Your task to perform on an android device: toggle location history Image 0: 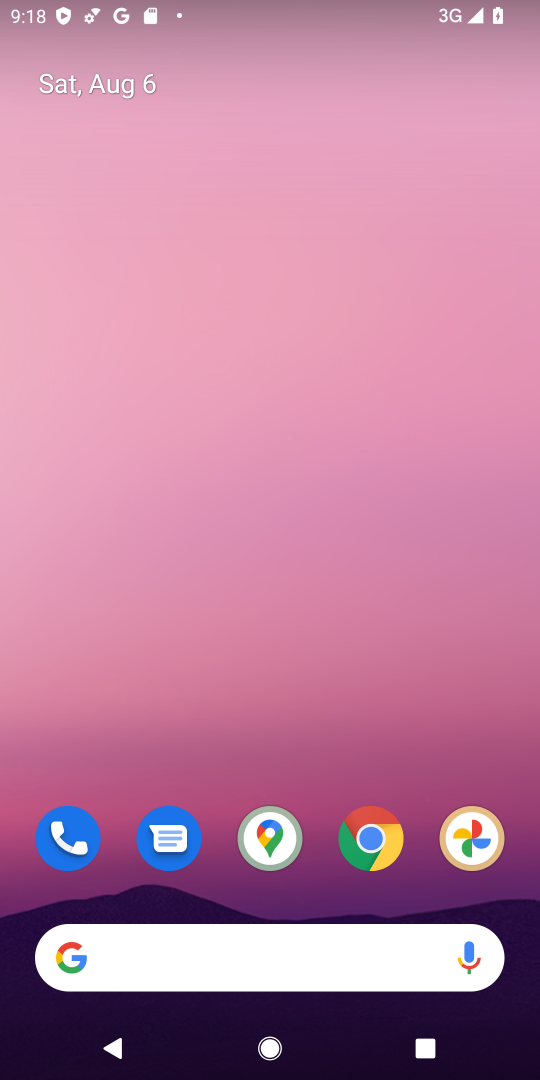
Step 0: drag from (312, 787) to (269, 196)
Your task to perform on an android device: toggle location history Image 1: 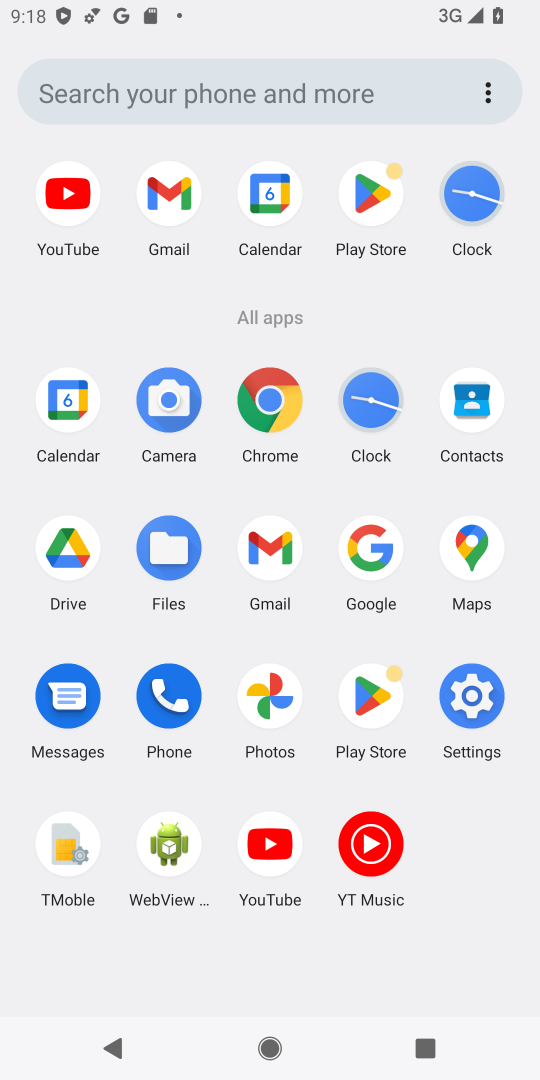
Step 1: click (452, 691)
Your task to perform on an android device: toggle location history Image 2: 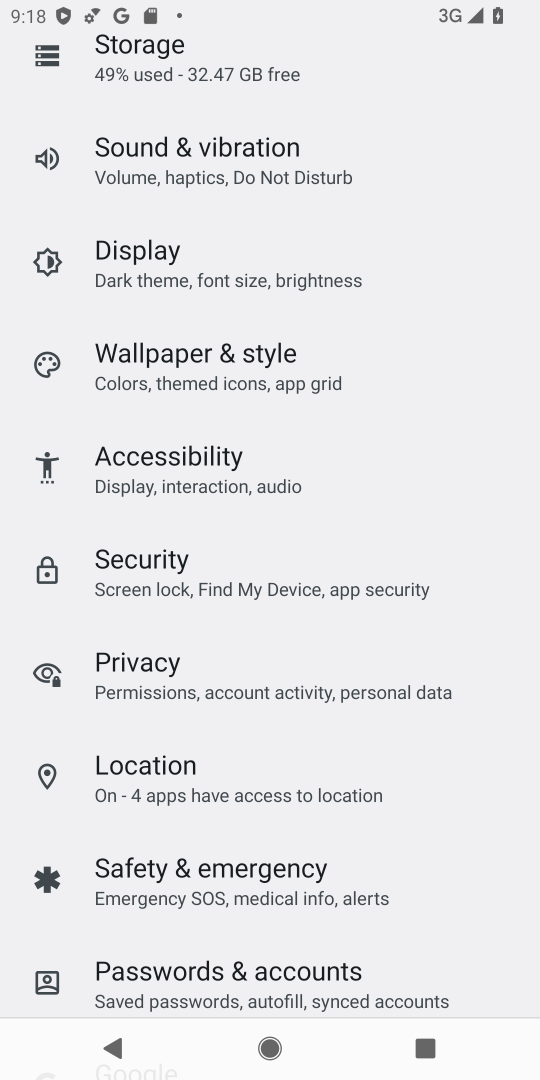
Step 2: click (244, 784)
Your task to perform on an android device: toggle location history Image 3: 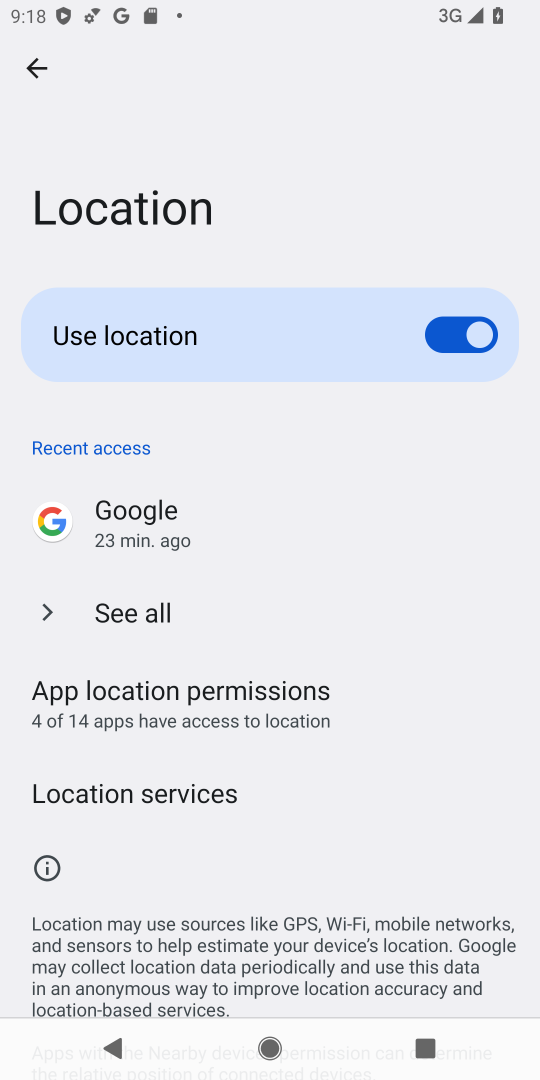
Step 3: click (265, 809)
Your task to perform on an android device: toggle location history Image 4: 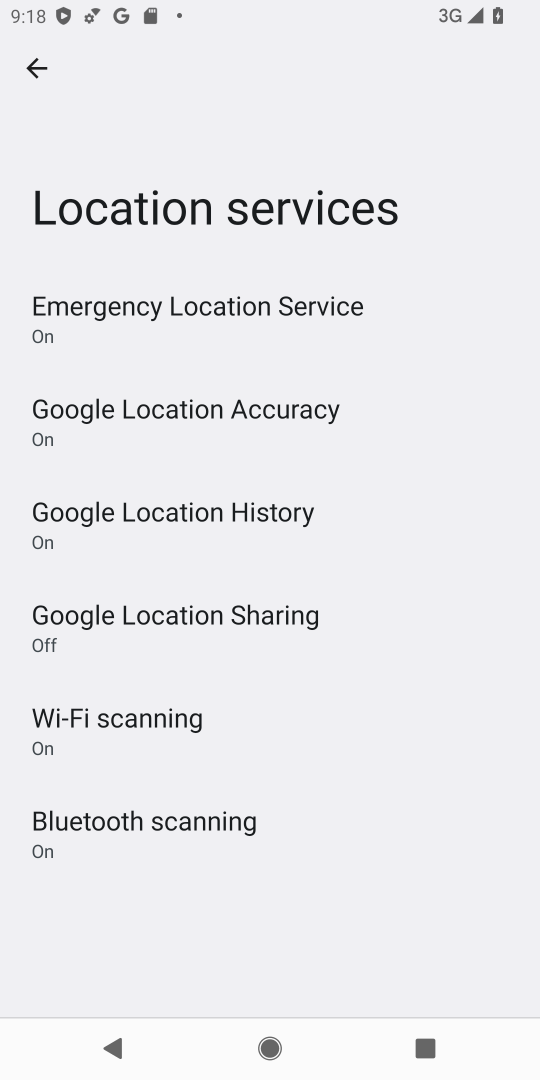
Step 4: click (273, 502)
Your task to perform on an android device: toggle location history Image 5: 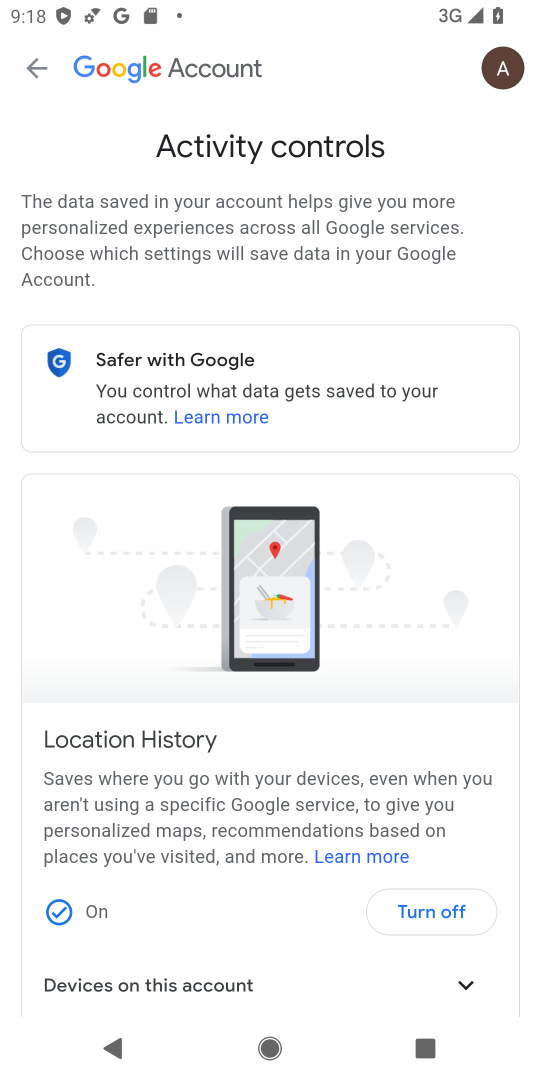
Step 5: click (440, 904)
Your task to perform on an android device: toggle location history Image 6: 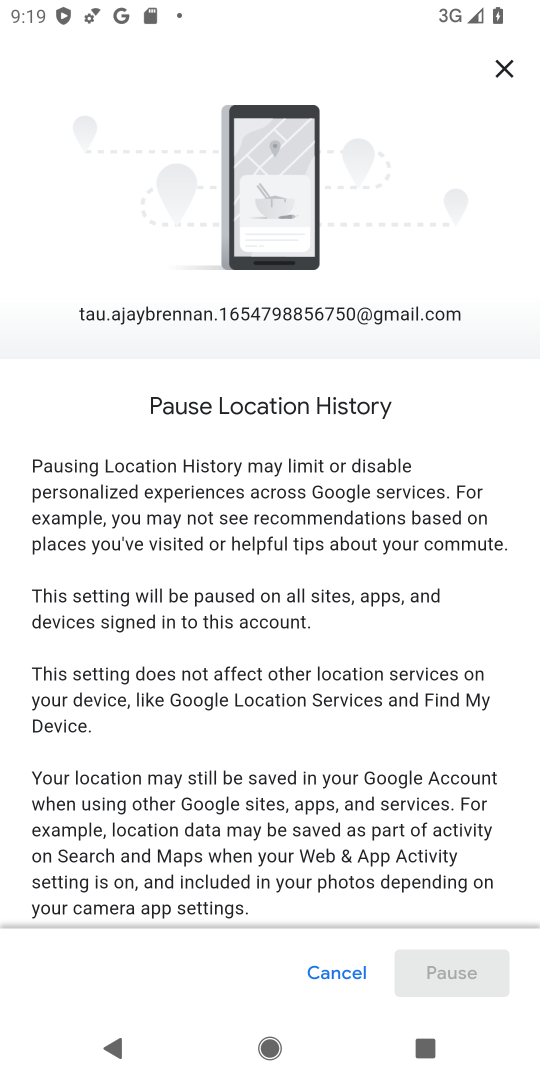
Step 6: drag from (397, 874) to (331, 544)
Your task to perform on an android device: toggle location history Image 7: 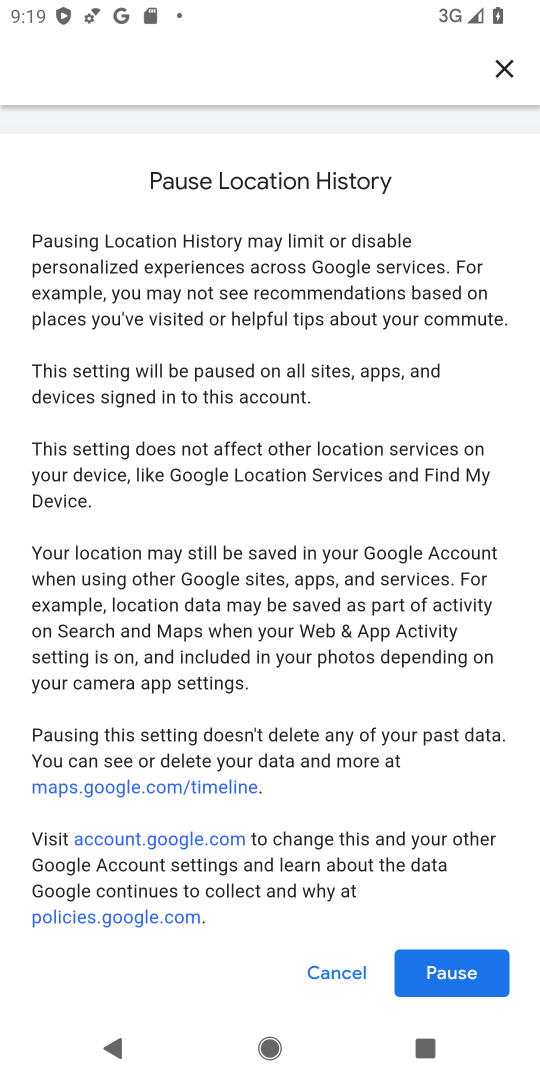
Step 7: click (450, 960)
Your task to perform on an android device: toggle location history Image 8: 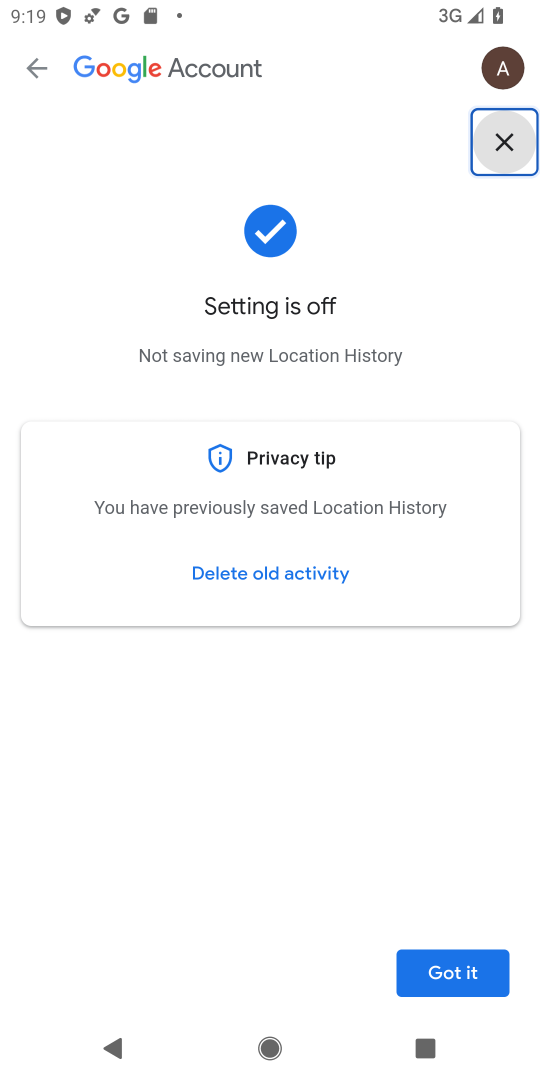
Step 8: click (453, 968)
Your task to perform on an android device: toggle location history Image 9: 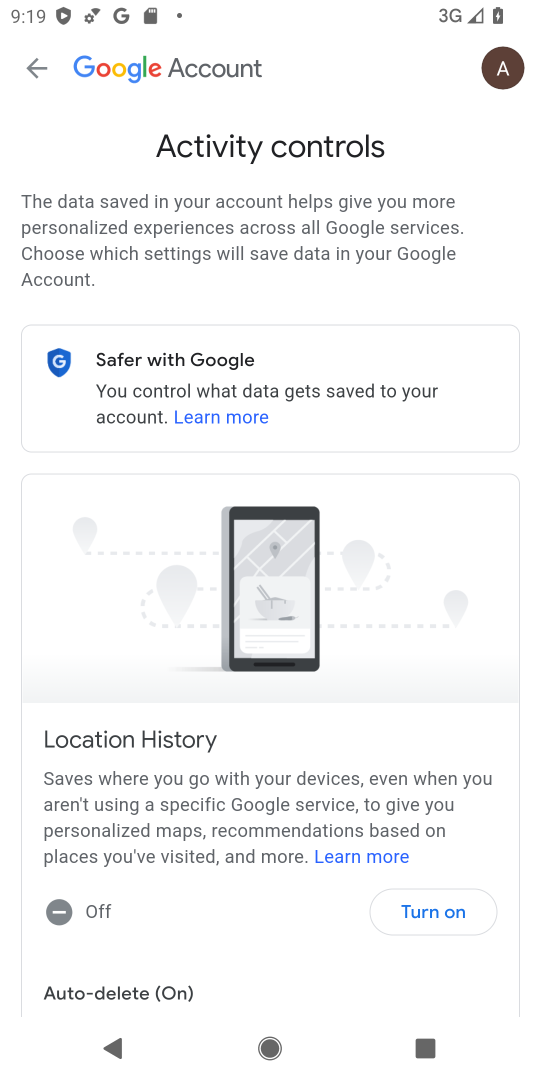
Step 9: task complete